Your task to perform on an android device: toggle wifi Image 0: 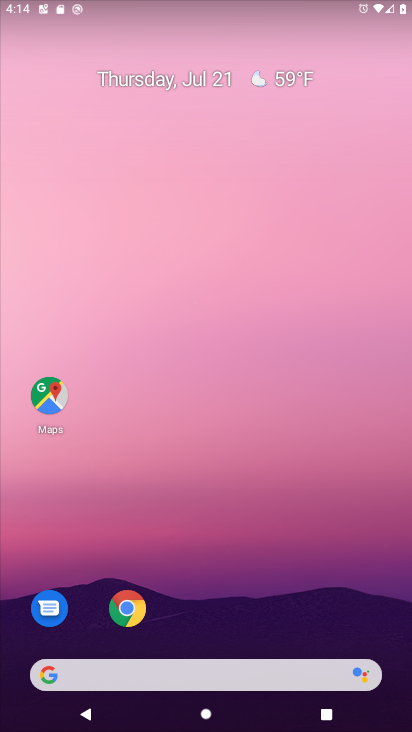
Step 0: drag from (282, 579) to (325, 4)
Your task to perform on an android device: toggle wifi Image 1: 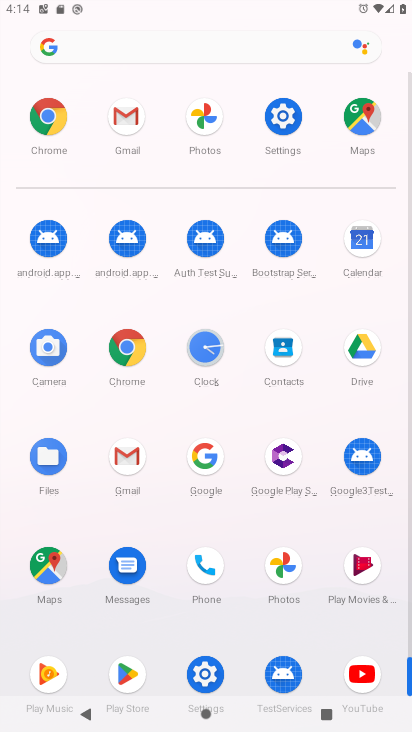
Step 1: click (285, 123)
Your task to perform on an android device: toggle wifi Image 2: 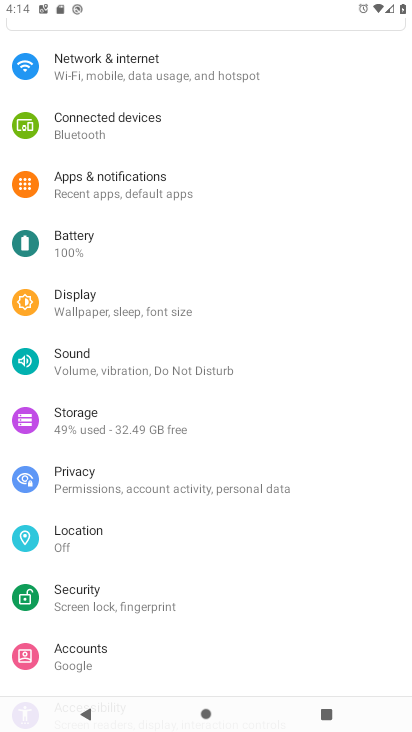
Step 2: click (190, 74)
Your task to perform on an android device: toggle wifi Image 3: 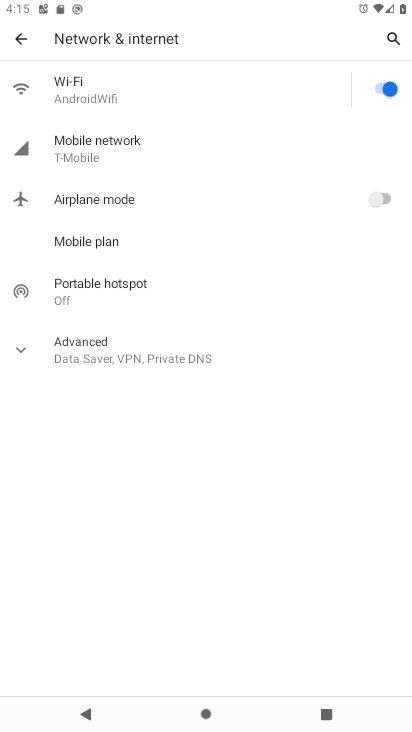
Step 3: click (385, 82)
Your task to perform on an android device: toggle wifi Image 4: 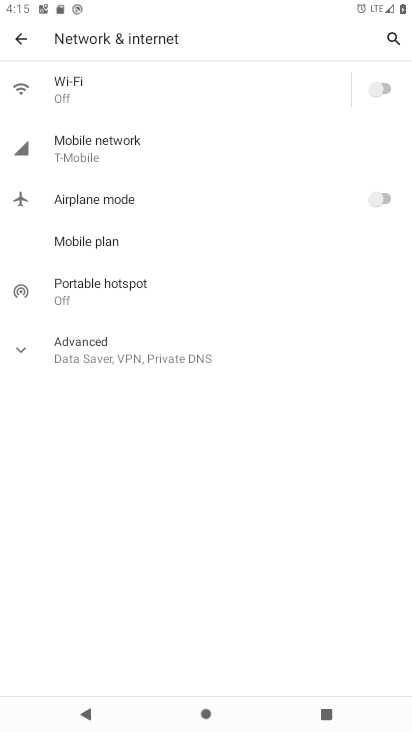
Step 4: task complete